Your task to perform on an android device: turn on notifications settings in the gmail app Image 0: 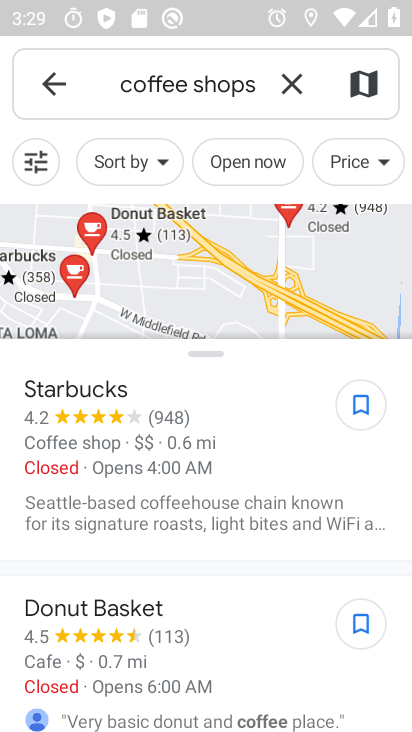
Step 0: press home button
Your task to perform on an android device: turn on notifications settings in the gmail app Image 1: 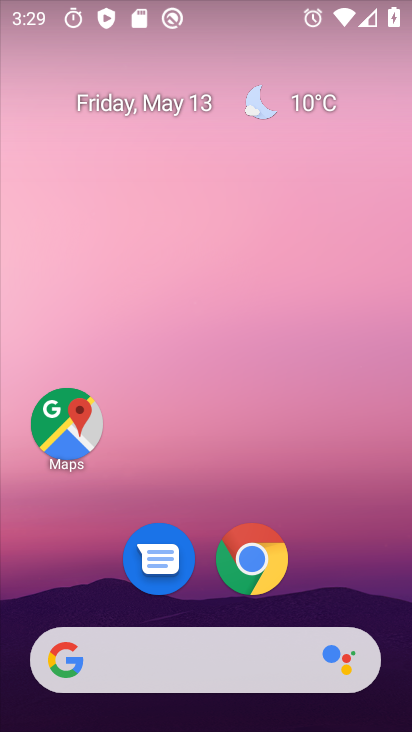
Step 1: drag from (201, 597) to (223, 187)
Your task to perform on an android device: turn on notifications settings in the gmail app Image 2: 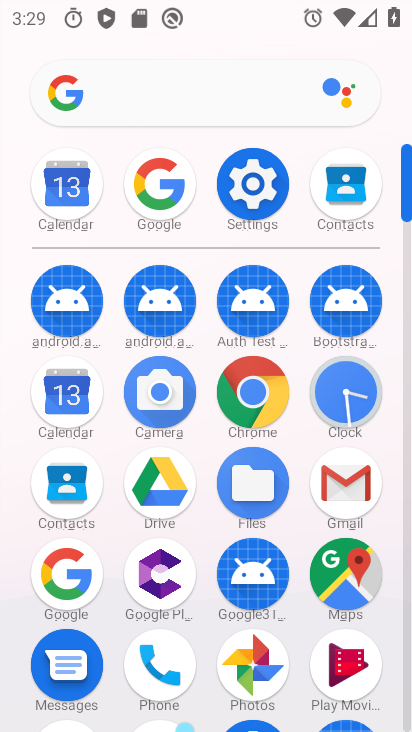
Step 2: click (320, 466)
Your task to perform on an android device: turn on notifications settings in the gmail app Image 3: 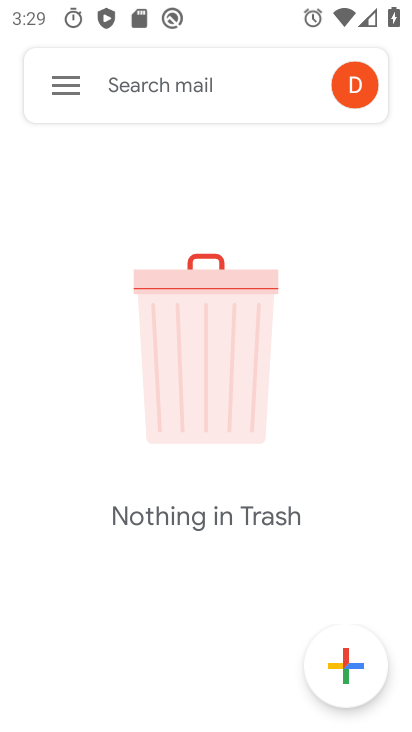
Step 3: click (66, 86)
Your task to perform on an android device: turn on notifications settings in the gmail app Image 4: 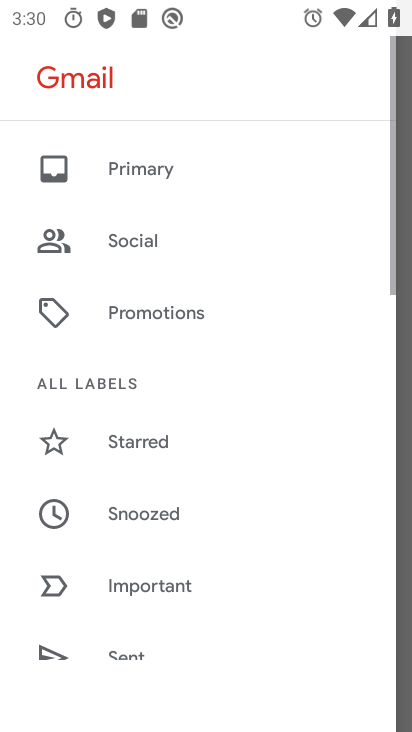
Step 4: drag from (219, 617) to (233, 266)
Your task to perform on an android device: turn on notifications settings in the gmail app Image 5: 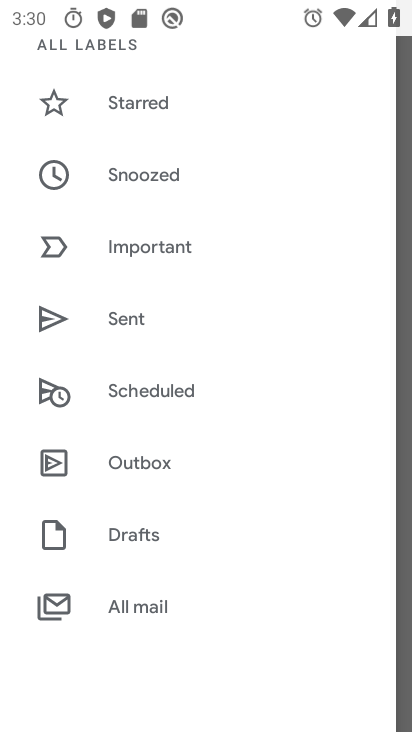
Step 5: drag from (196, 624) to (222, 334)
Your task to perform on an android device: turn on notifications settings in the gmail app Image 6: 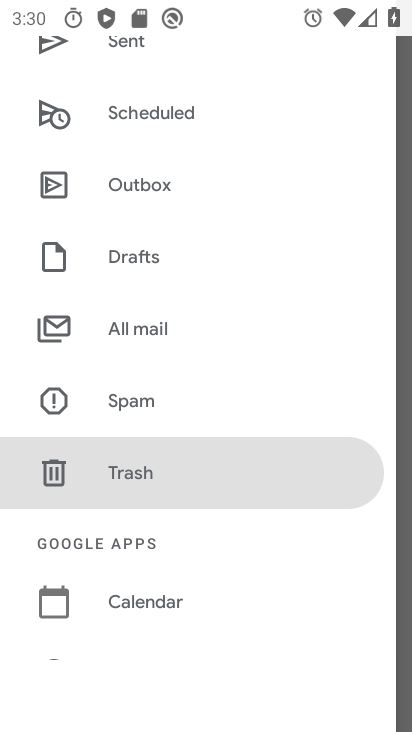
Step 6: drag from (177, 610) to (170, 293)
Your task to perform on an android device: turn on notifications settings in the gmail app Image 7: 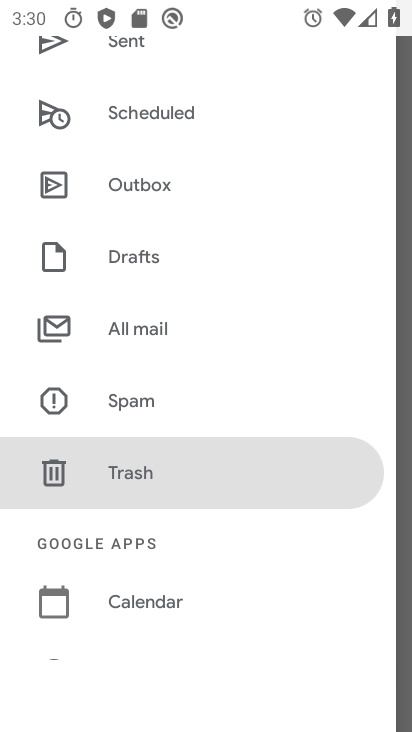
Step 7: drag from (235, 439) to (262, 266)
Your task to perform on an android device: turn on notifications settings in the gmail app Image 8: 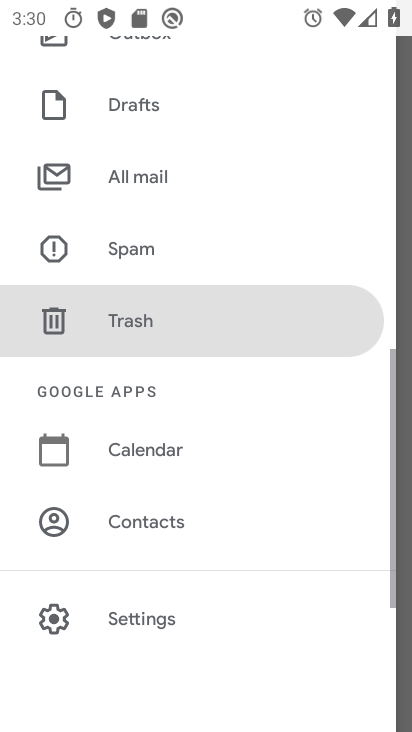
Step 8: click (172, 658)
Your task to perform on an android device: turn on notifications settings in the gmail app Image 9: 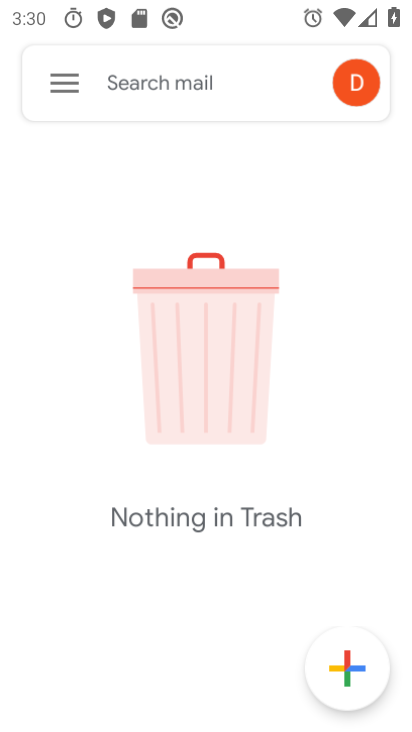
Step 9: click (70, 87)
Your task to perform on an android device: turn on notifications settings in the gmail app Image 10: 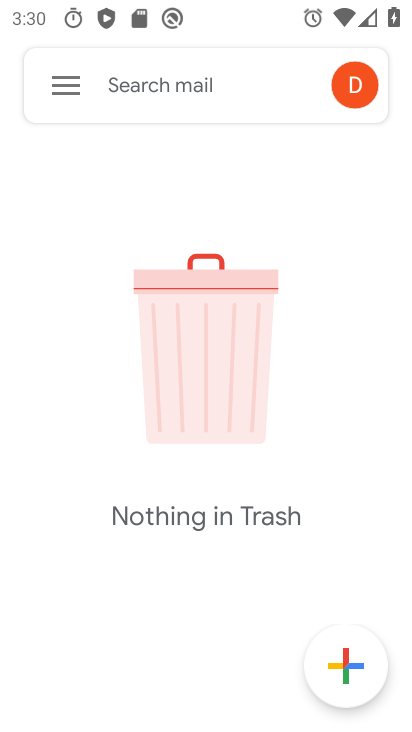
Step 10: click (65, 88)
Your task to perform on an android device: turn on notifications settings in the gmail app Image 11: 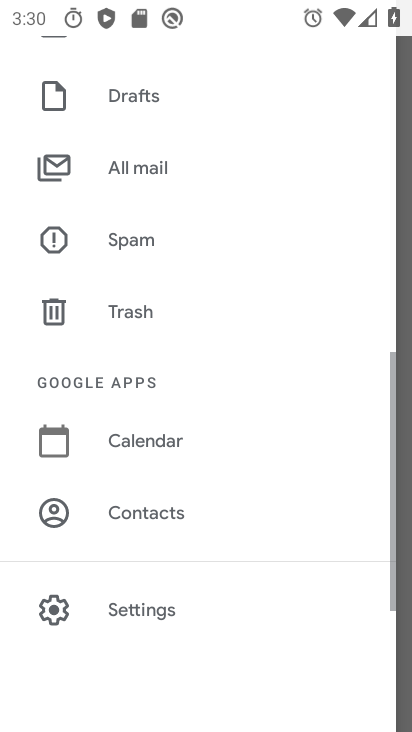
Step 11: click (187, 608)
Your task to perform on an android device: turn on notifications settings in the gmail app Image 12: 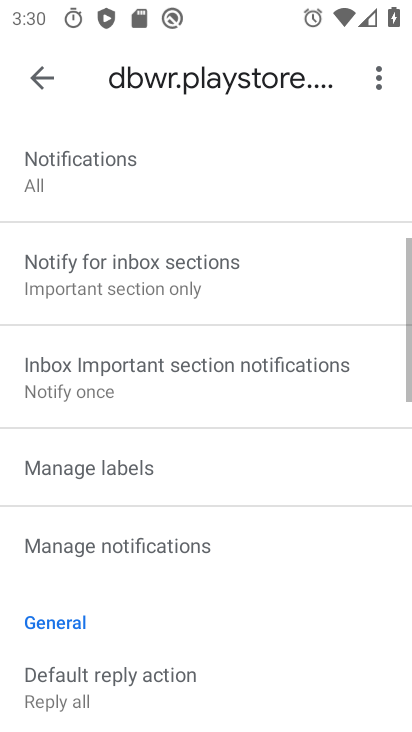
Step 12: drag from (207, 587) to (213, 446)
Your task to perform on an android device: turn on notifications settings in the gmail app Image 13: 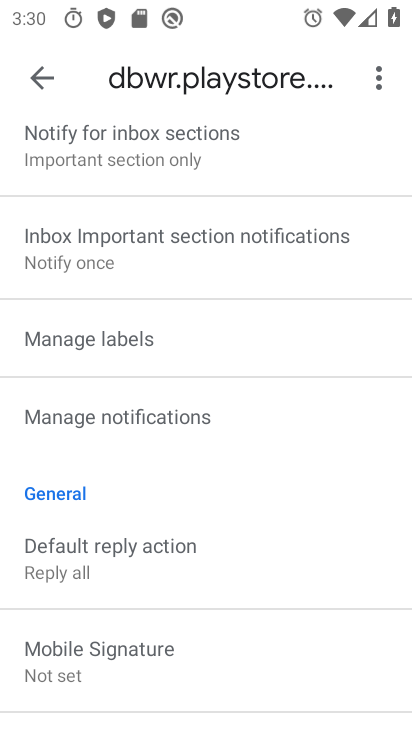
Step 13: click (213, 430)
Your task to perform on an android device: turn on notifications settings in the gmail app Image 14: 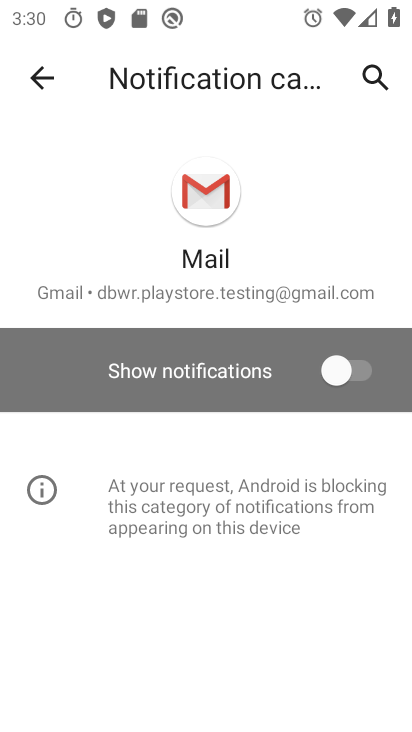
Step 14: click (369, 366)
Your task to perform on an android device: turn on notifications settings in the gmail app Image 15: 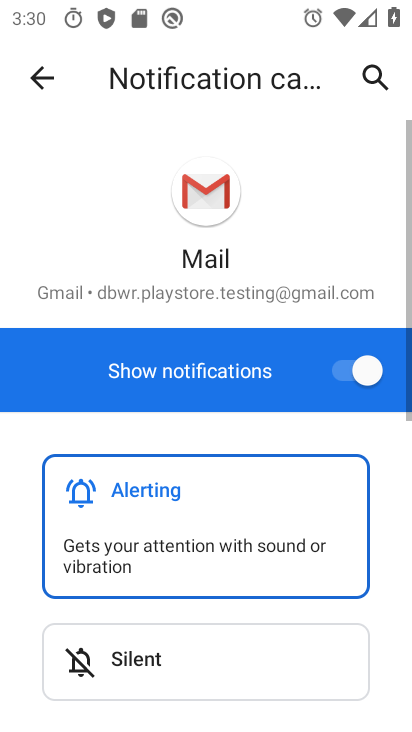
Step 15: task complete